Your task to perform on an android device: turn off translation in the chrome app Image 0: 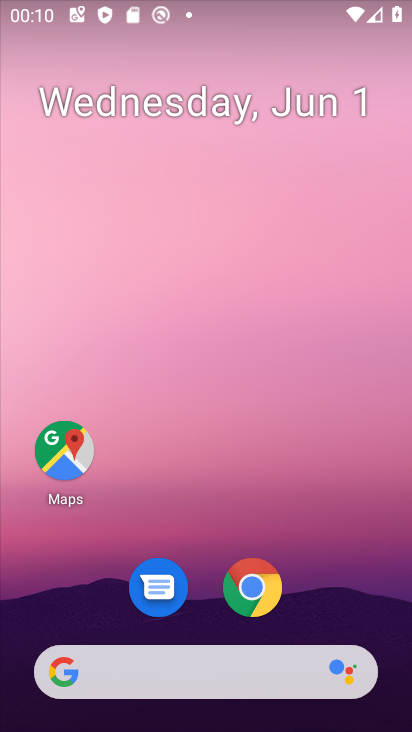
Step 0: click (246, 585)
Your task to perform on an android device: turn off translation in the chrome app Image 1: 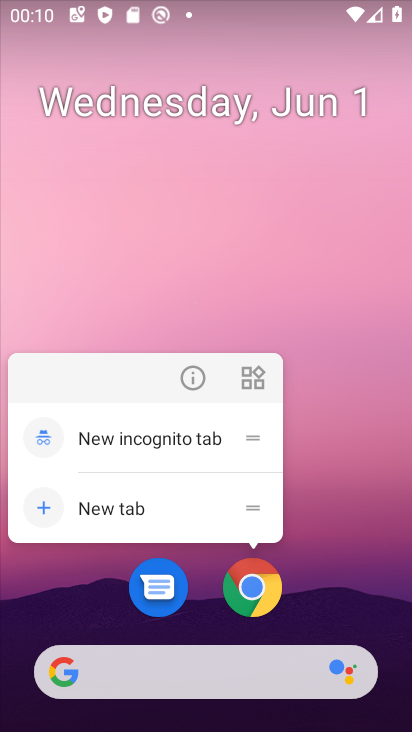
Step 1: click (246, 584)
Your task to perform on an android device: turn off translation in the chrome app Image 2: 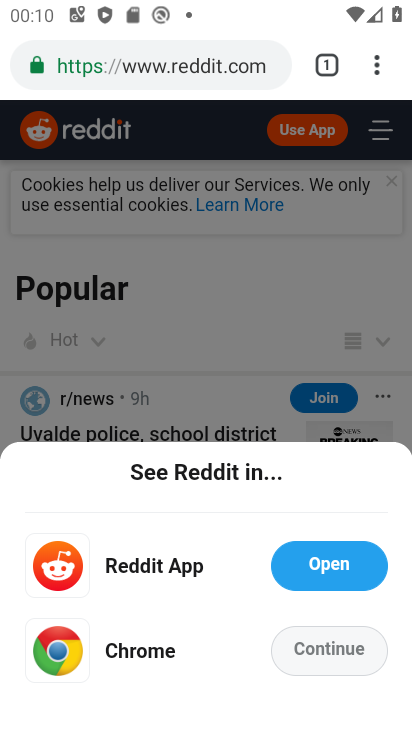
Step 2: click (381, 68)
Your task to perform on an android device: turn off translation in the chrome app Image 3: 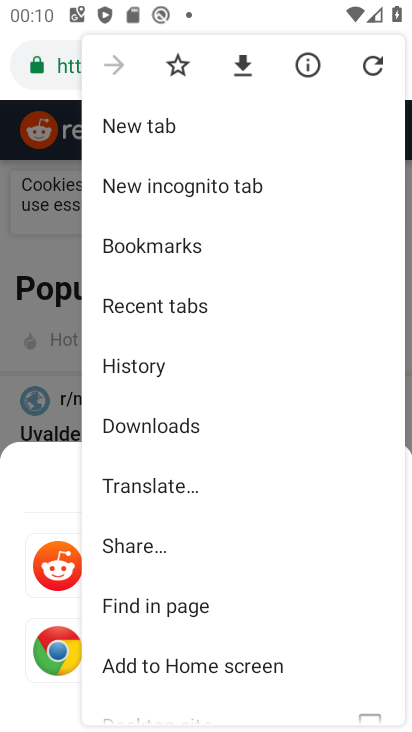
Step 3: drag from (199, 627) to (252, 228)
Your task to perform on an android device: turn off translation in the chrome app Image 4: 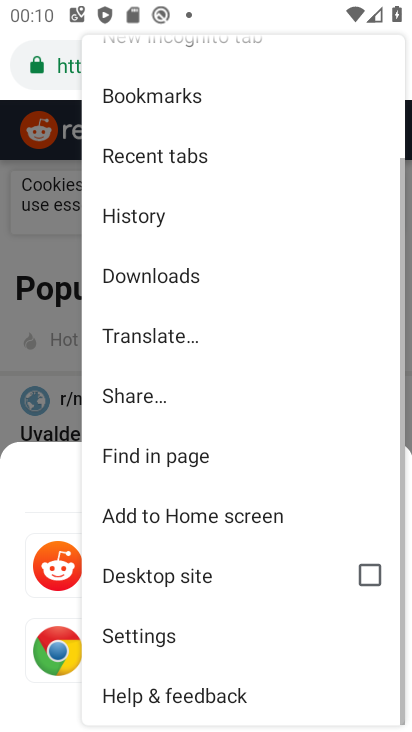
Step 4: click (139, 639)
Your task to perform on an android device: turn off translation in the chrome app Image 5: 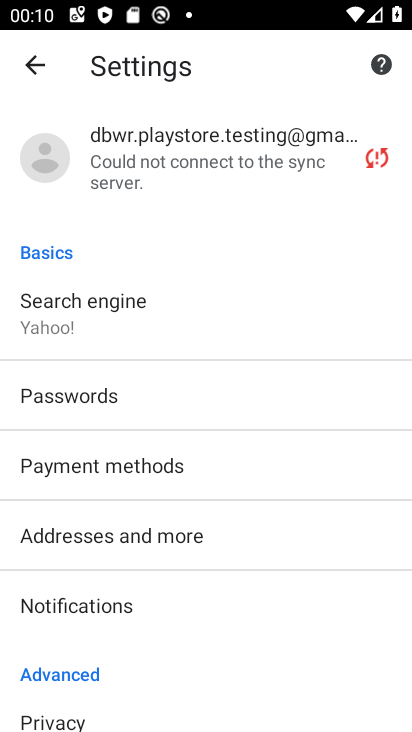
Step 5: drag from (127, 673) to (174, 192)
Your task to perform on an android device: turn off translation in the chrome app Image 6: 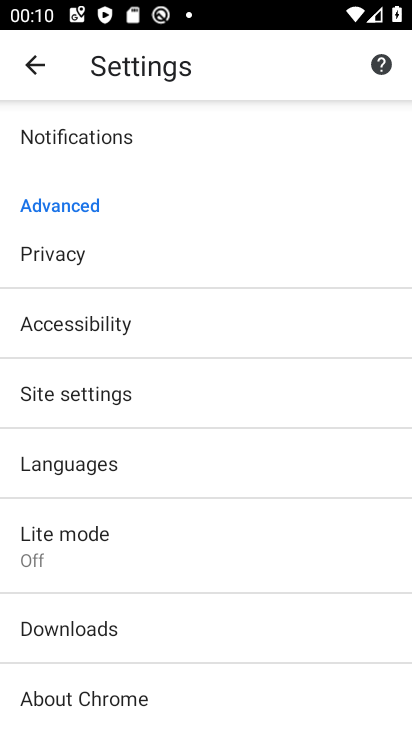
Step 6: click (85, 471)
Your task to perform on an android device: turn off translation in the chrome app Image 7: 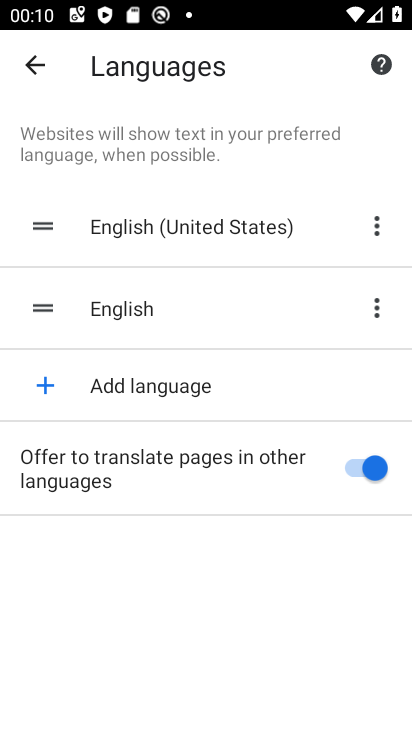
Step 7: click (381, 455)
Your task to perform on an android device: turn off translation in the chrome app Image 8: 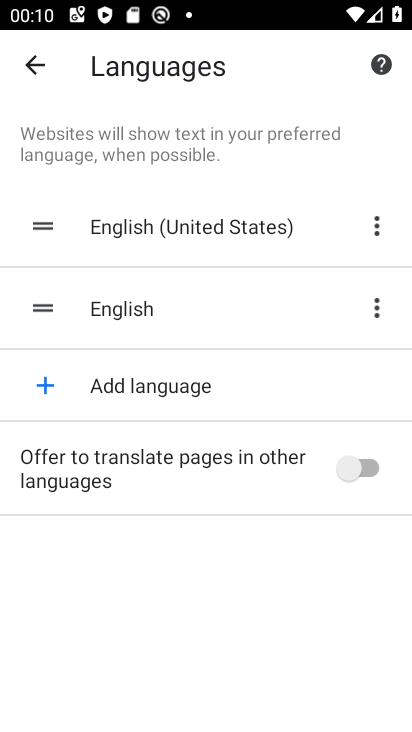
Step 8: task complete